Your task to perform on an android device: Set the phone to "Do not disturb". Image 0: 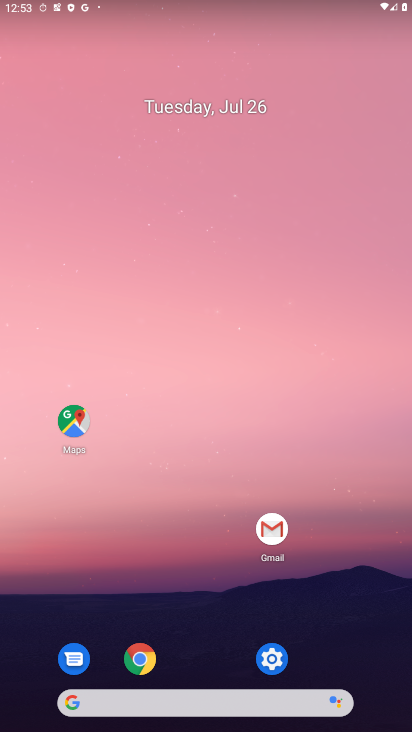
Step 0: click (270, 668)
Your task to perform on an android device: Set the phone to "Do not disturb". Image 1: 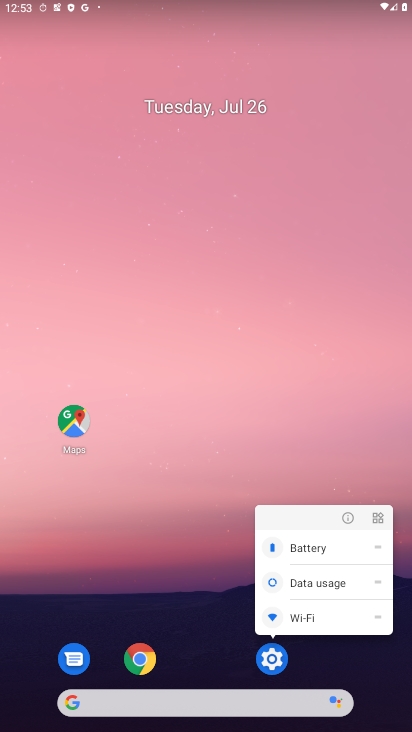
Step 1: click (281, 672)
Your task to perform on an android device: Set the phone to "Do not disturb". Image 2: 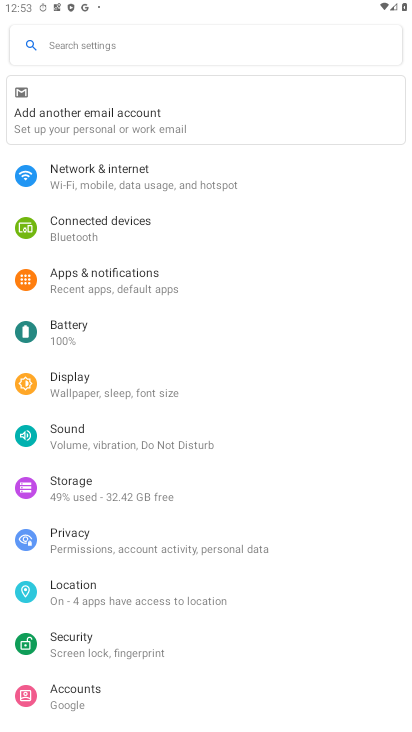
Step 2: click (89, 60)
Your task to perform on an android device: Set the phone to "Do not disturb". Image 3: 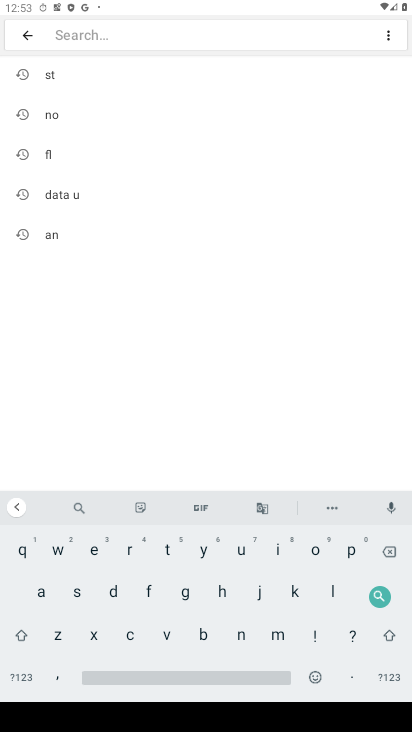
Step 3: click (111, 597)
Your task to perform on an android device: Set the phone to "Do not disturb". Image 4: 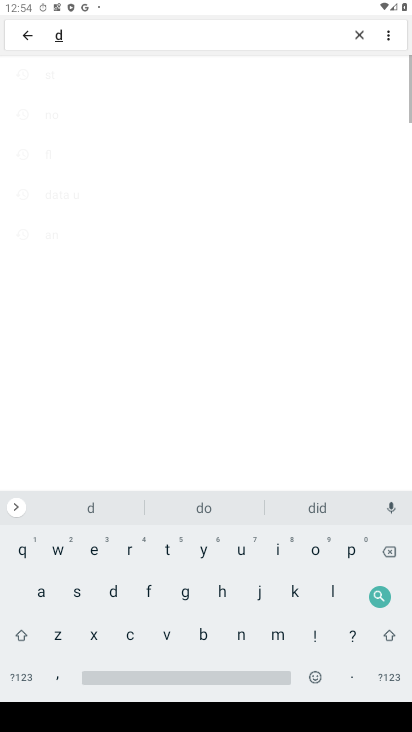
Step 4: click (235, 631)
Your task to perform on an android device: Set the phone to "Do not disturb". Image 5: 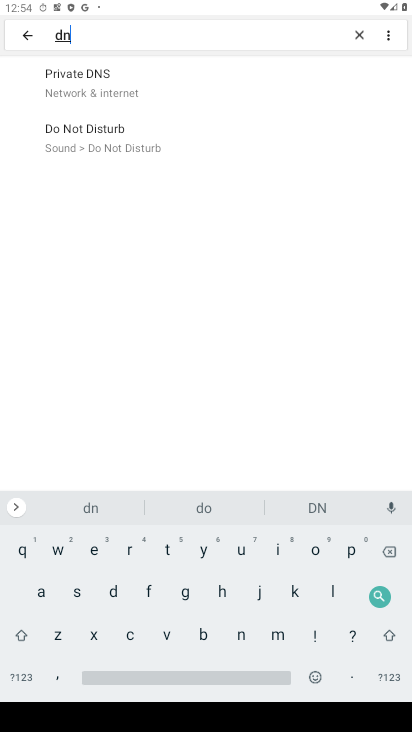
Step 5: click (107, 589)
Your task to perform on an android device: Set the phone to "Do not disturb". Image 6: 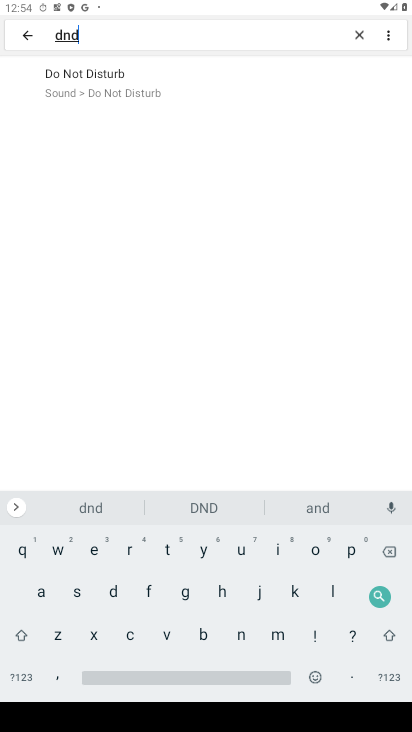
Step 6: click (119, 94)
Your task to perform on an android device: Set the phone to "Do not disturb". Image 7: 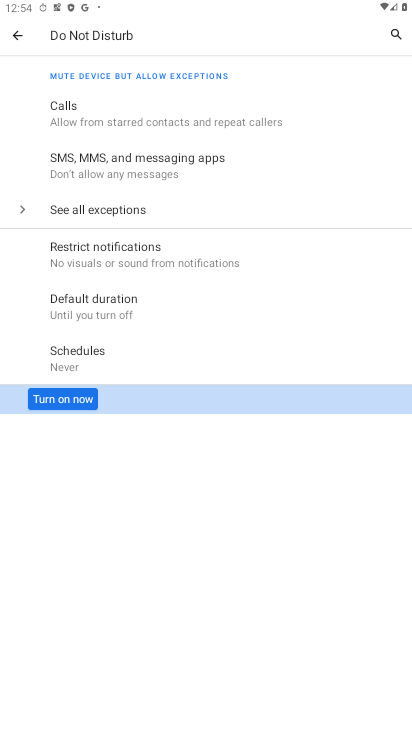
Step 7: click (70, 396)
Your task to perform on an android device: Set the phone to "Do not disturb". Image 8: 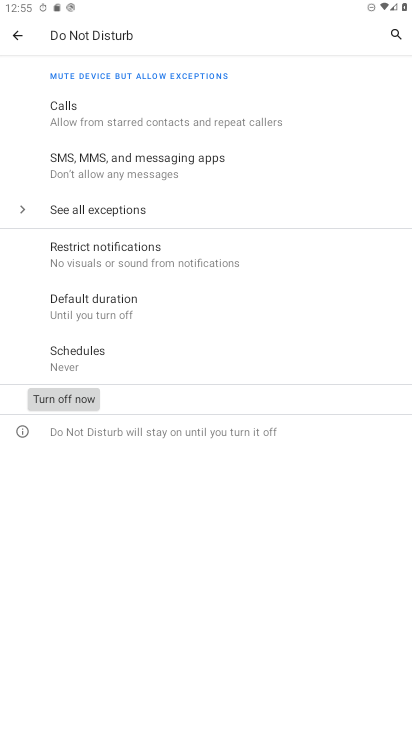
Step 8: task complete